Your task to perform on an android device: Open eBay Image 0: 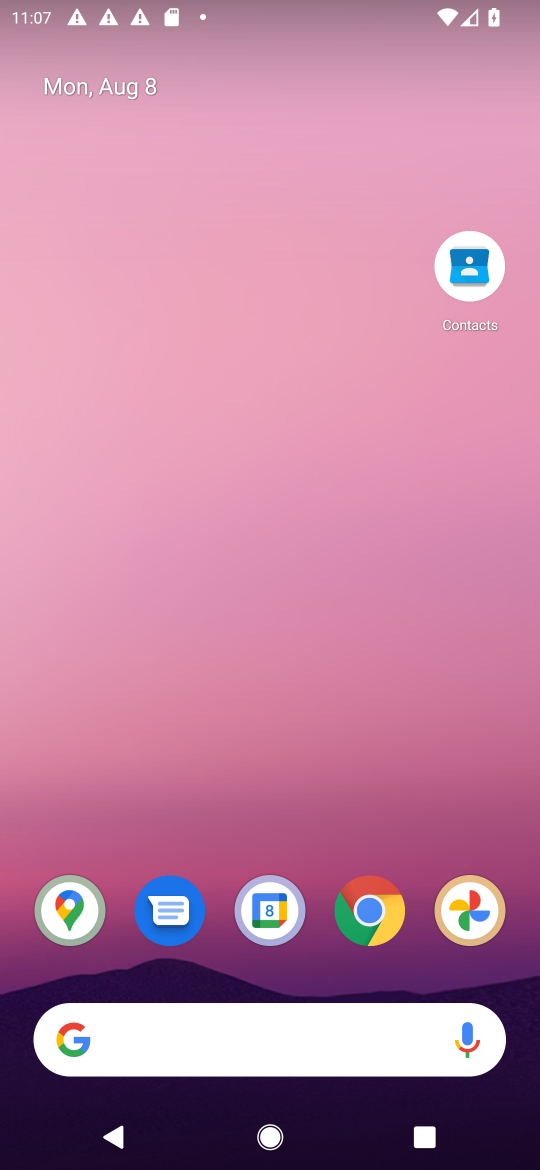
Step 0: click (379, 925)
Your task to perform on an android device: Open eBay Image 1: 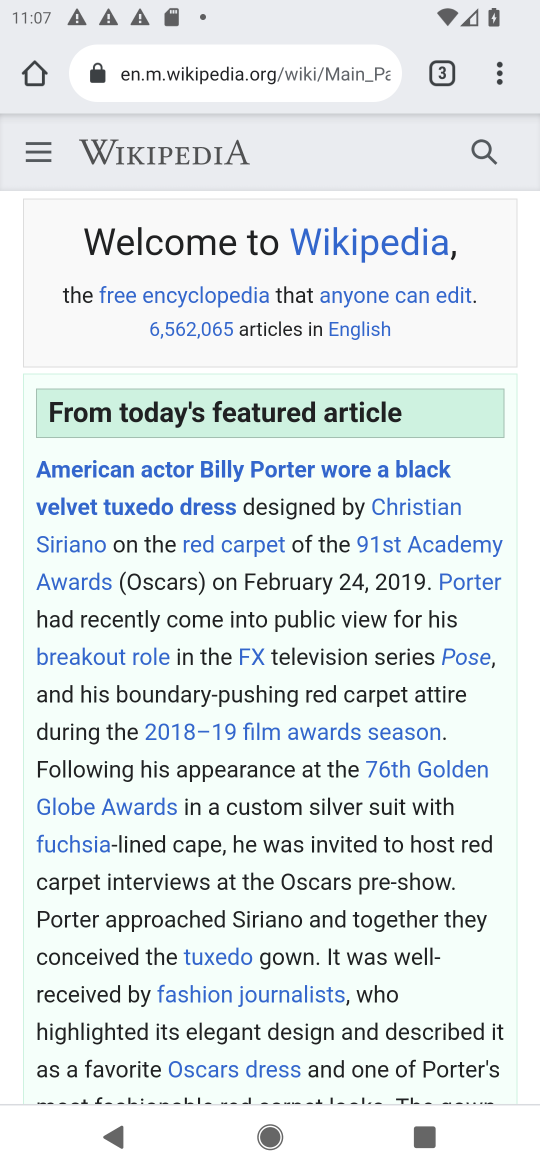
Step 1: click (437, 81)
Your task to perform on an android device: Open eBay Image 2: 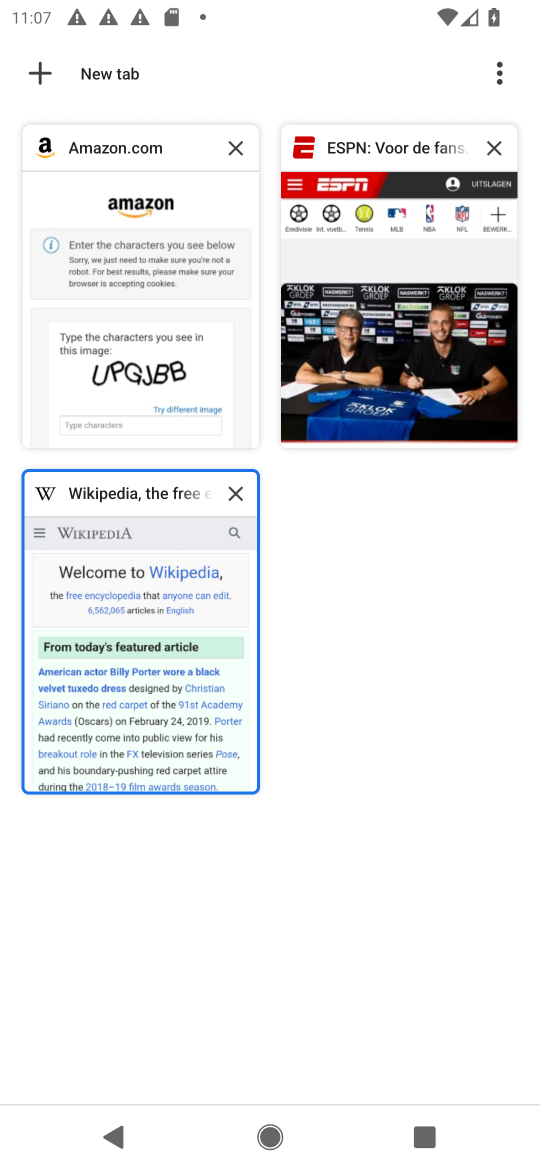
Step 2: click (25, 77)
Your task to perform on an android device: Open eBay Image 3: 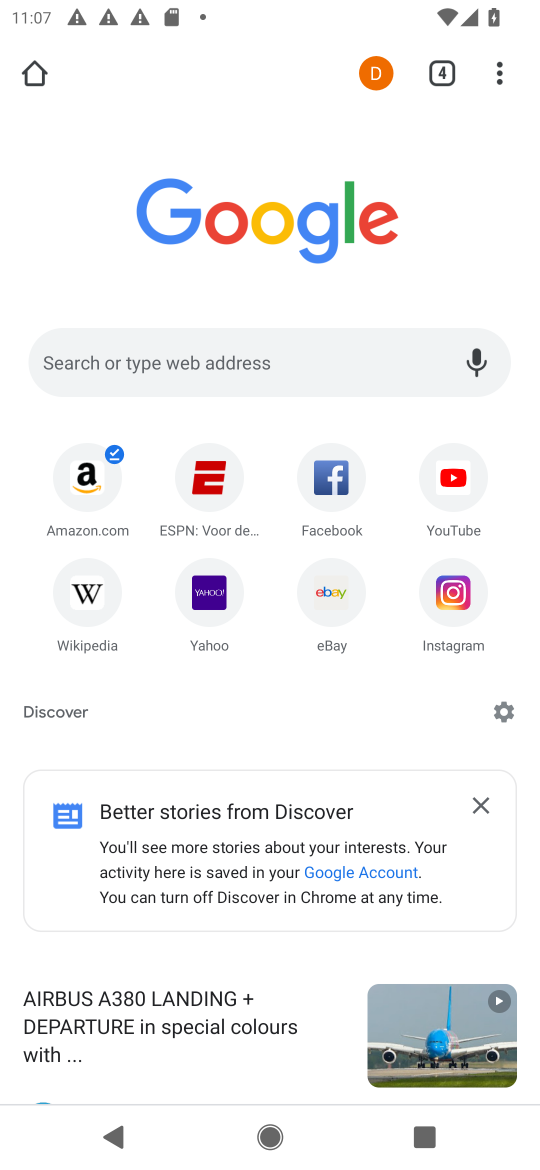
Step 3: click (320, 600)
Your task to perform on an android device: Open eBay Image 4: 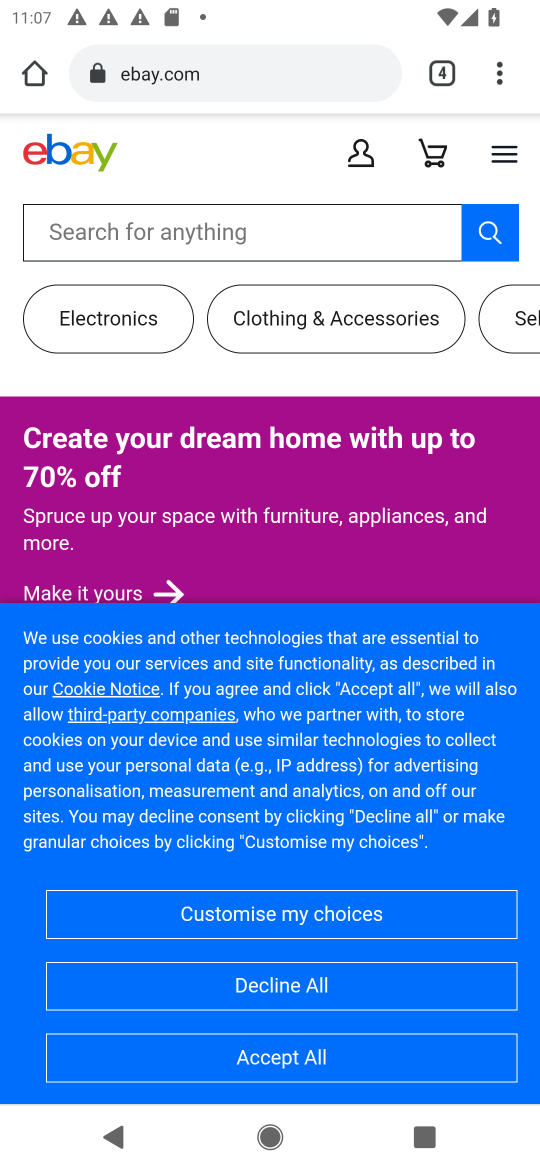
Step 4: task complete